Your task to perform on an android device: Open accessibility settings Image 0: 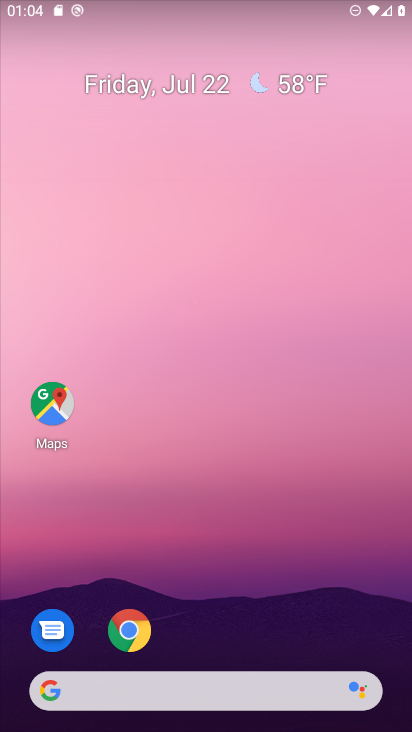
Step 0: drag from (225, 574) to (270, 66)
Your task to perform on an android device: Open accessibility settings Image 1: 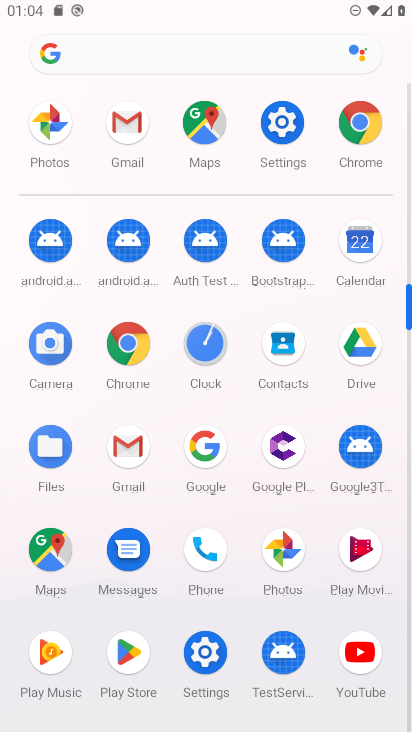
Step 1: click (298, 123)
Your task to perform on an android device: Open accessibility settings Image 2: 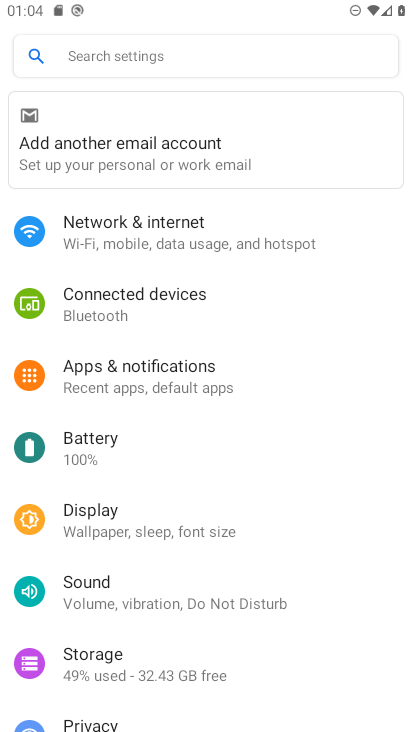
Step 2: drag from (285, 651) to (306, 251)
Your task to perform on an android device: Open accessibility settings Image 3: 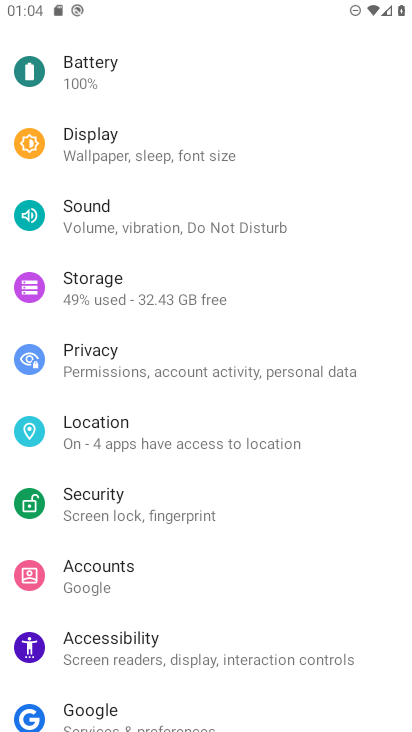
Step 3: click (105, 650)
Your task to perform on an android device: Open accessibility settings Image 4: 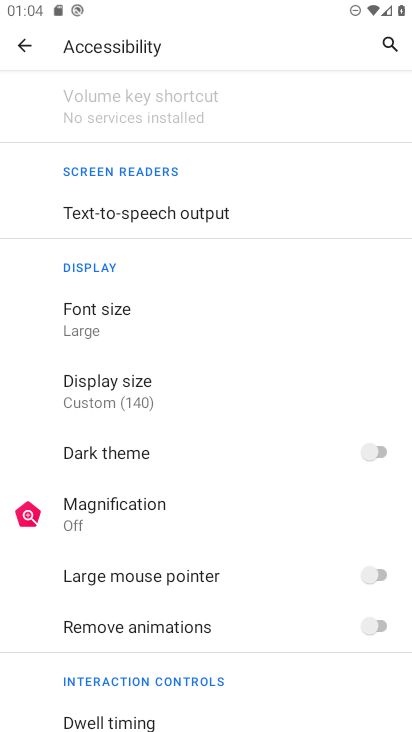
Step 4: task complete